Your task to perform on an android device: clear all cookies in the chrome app Image 0: 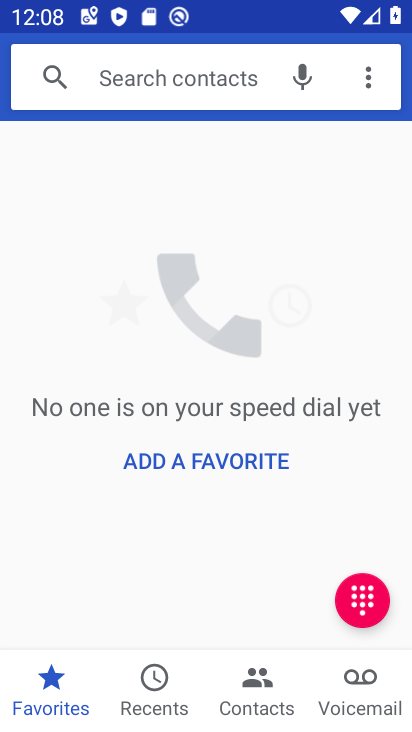
Step 0: press home button
Your task to perform on an android device: clear all cookies in the chrome app Image 1: 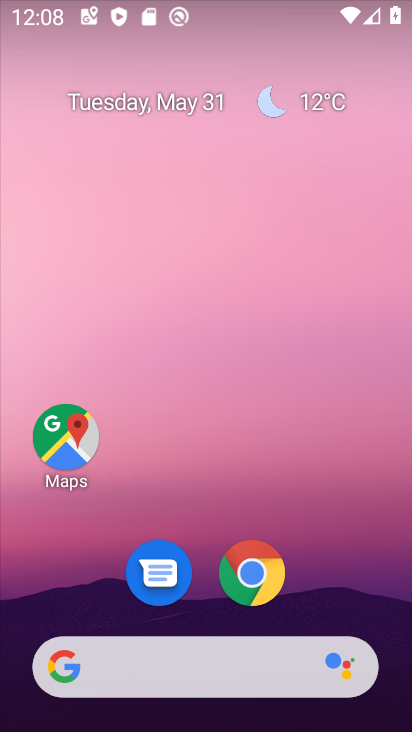
Step 1: drag from (379, 525) to (386, 255)
Your task to perform on an android device: clear all cookies in the chrome app Image 2: 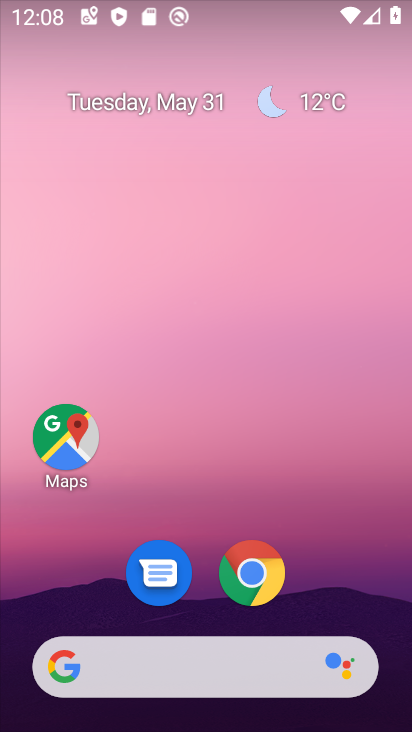
Step 2: drag from (356, 527) to (333, 105)
Your task to perform on an android device: clear all cookies in the chrome app Image 3: 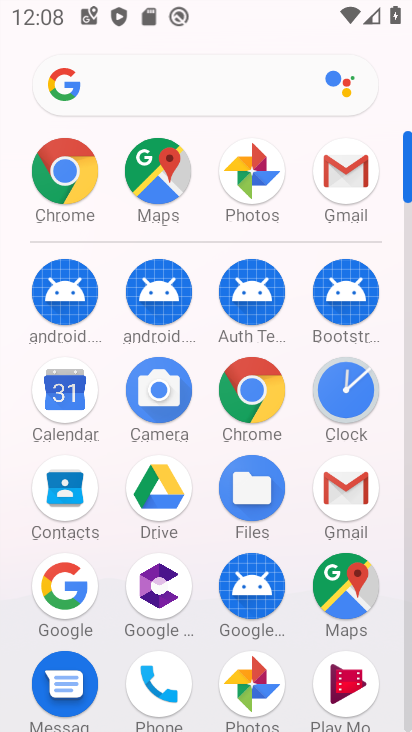
Step 3: click (66, 189)
Your task to perform on an android device: clear all cookies in the chrome app Image 4: 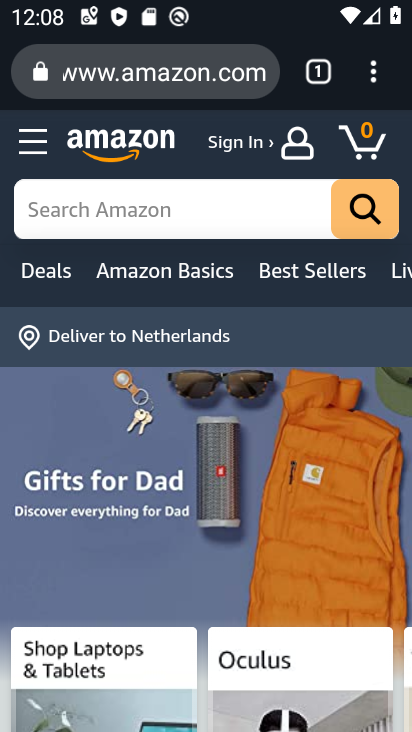
Step 4: drag from (375, 82) to (163, 569)
Your task to perform on an android device: clear all cookies in the chrome app Image 5: 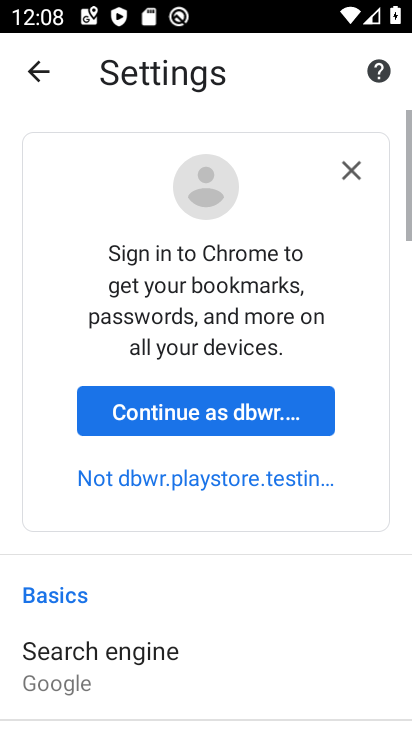
Step 5: drag from (217, 635) to (244, 232)
Your task to perform on an android device: clear all cookies in the chrome app Image 6: 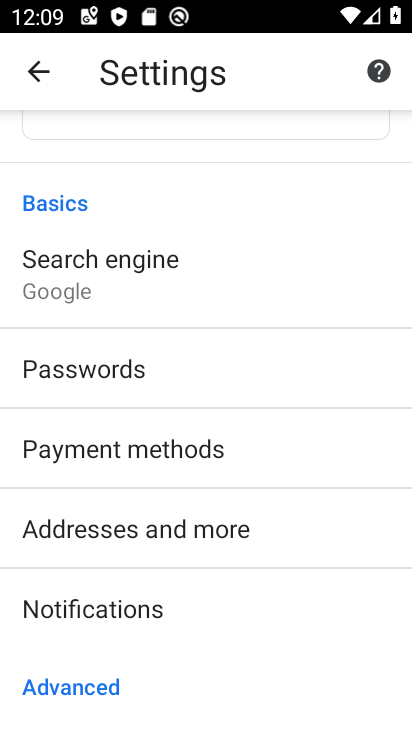
Step 6: drag from (251, 587) to (262, 215)
Your task to perform on an android device: clear all cookies in the chrome app Image 7: 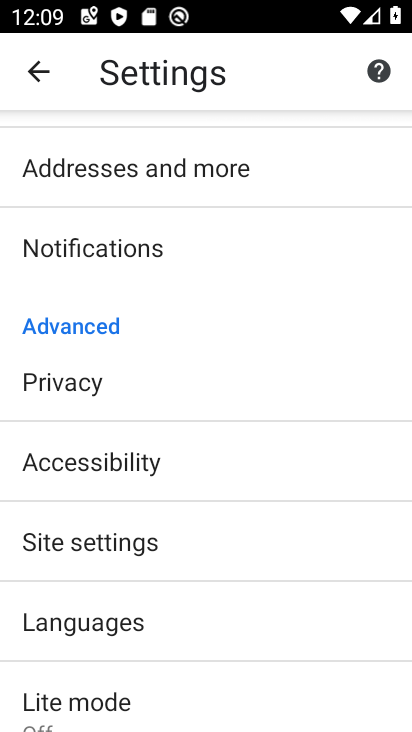
Step 7: click (220, 550)
Your task to perform on an android device: clear all cookies in the chrome app Image 8: 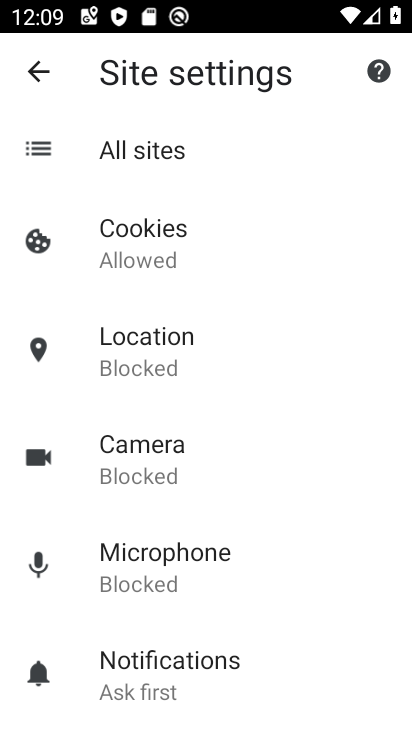
Step 8: drag from (265, 629) to (258, 216)
Your task to perform on an android device: clear all cookies in the chrome app Image 9: 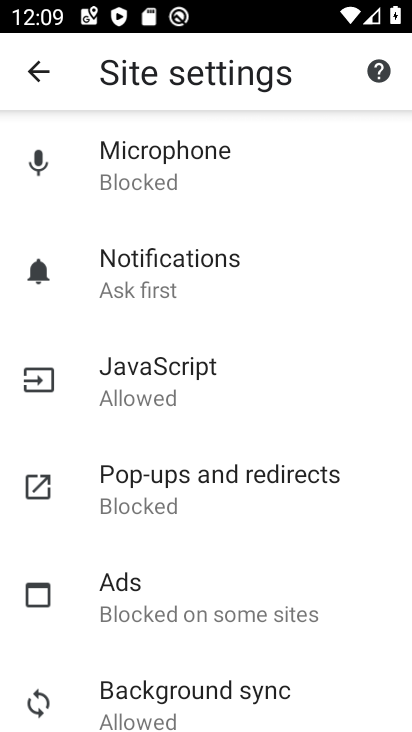
Step 9: drag from (312, 552) to (290, 235)
Your task to perform on an android device: clear all cookies in the chrome app Image 10: 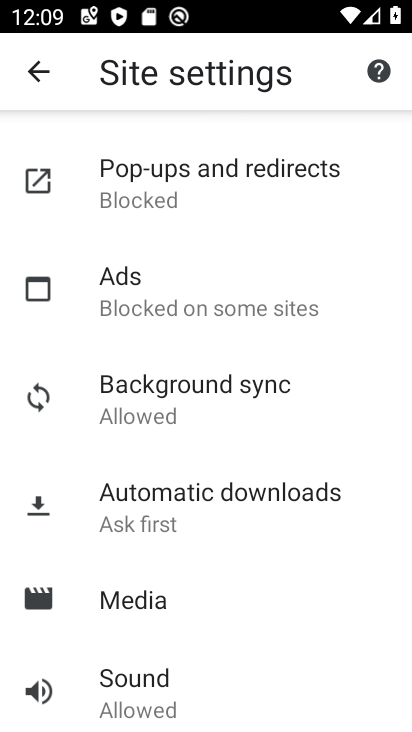
Step 10: drag from (289, 597) to (311, 254)
Your task to perform on an android device: clear all cookies in the chrome app Image 11: 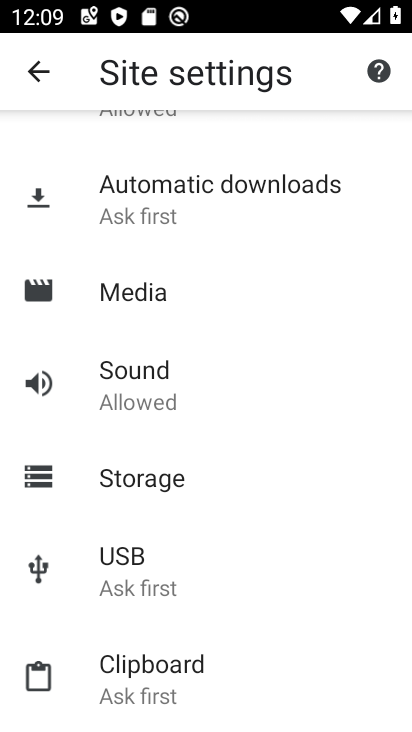
Step 11: drag from (308, 626) to (343, 267)
Your task to perform on an android device: clear all cookies in the chrome app Image 12: 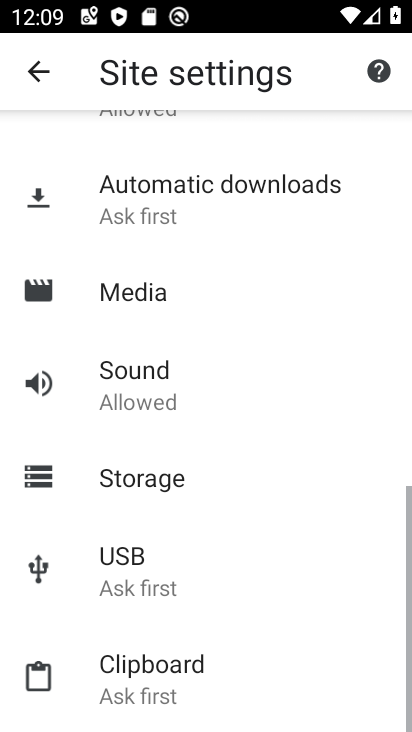
Step 12: drag from (341, 317) to (338, 718)
Your task to perform on an android device: clear all cookies in the chrome app Image 13: 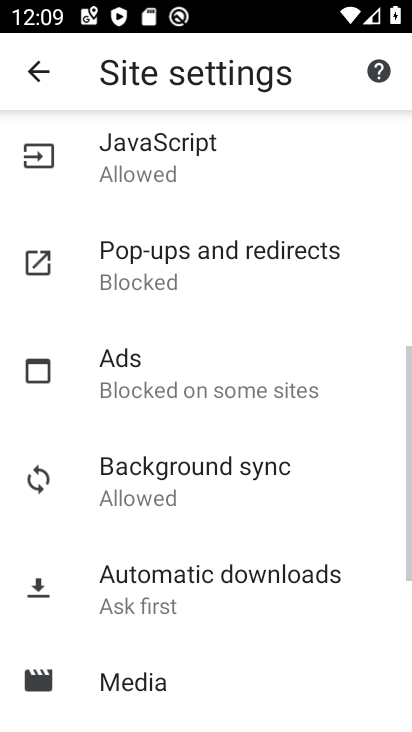
Step 13: drag from (314, 292) to (367, 637)
Your task to perform on an android device: clear all cookies in the chrome app Image 14: 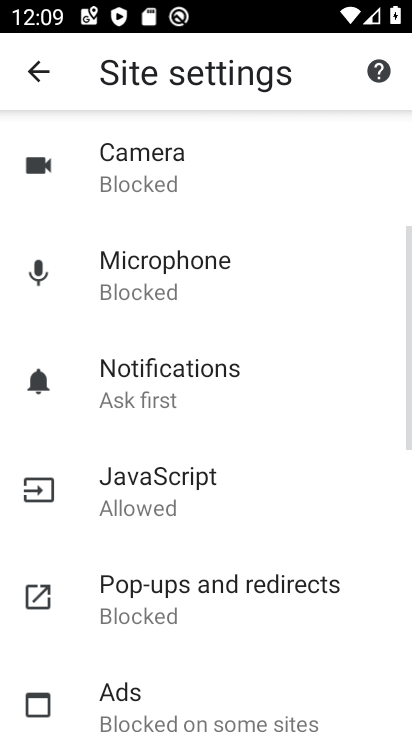
Step 14: drag from (359, 243) to (362, 653)
Your task to perform on an android device: clear all cookies in the chrome app Image 15: 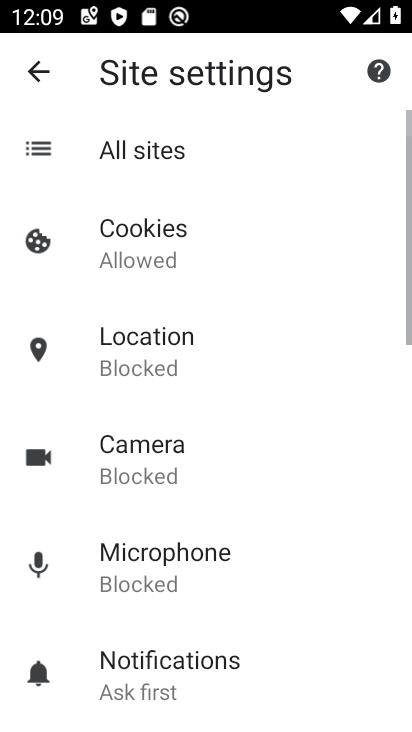
Step 15: drag from (291, 325) to (268, 682)
Your task to perform on an android device: clear all cookies in the chrome app Image 16: 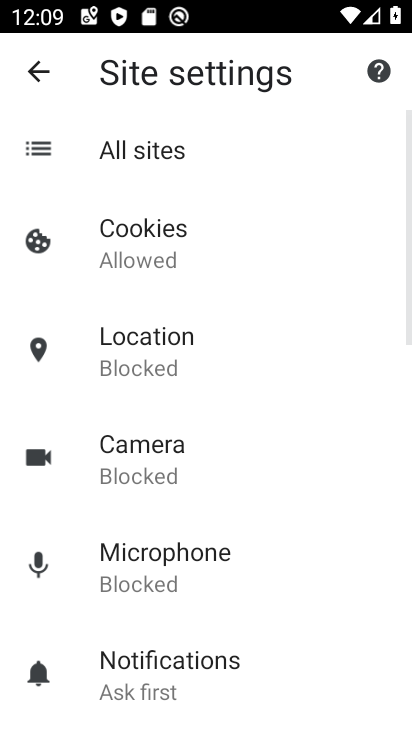
Step 16: click (141, 261)
Your task to perform on an android device: clear all cookies in the chrome app Image 17: 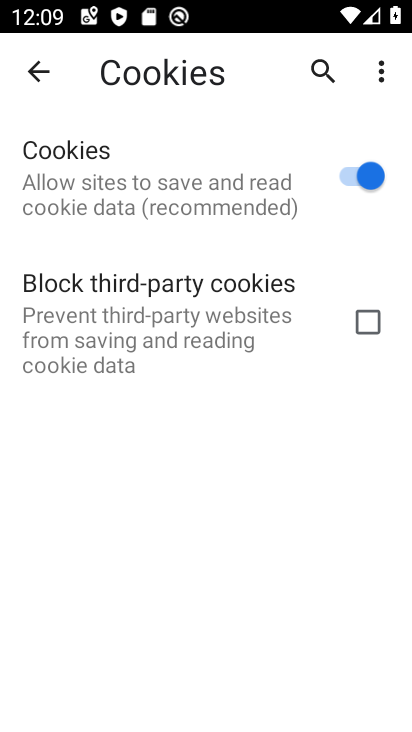
Step 17: task complete